Your task to perform on an android device: Open Google Chrome and open the bookmarks view Image 0: 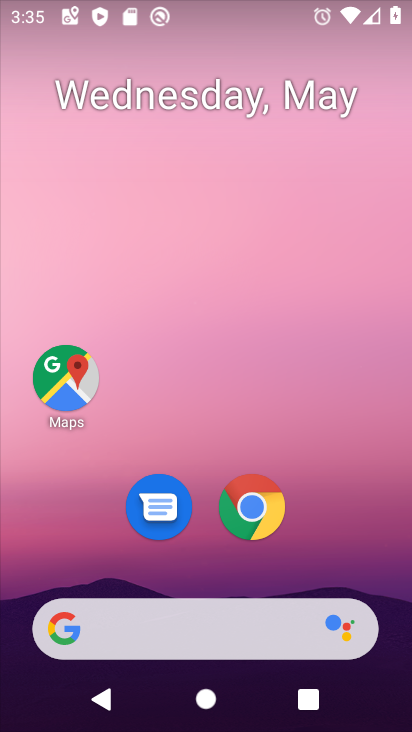
Step 0: click (268, 506)
Your task to perform on an android device: Open Google Chrome and open the bookmarks view Image 1: 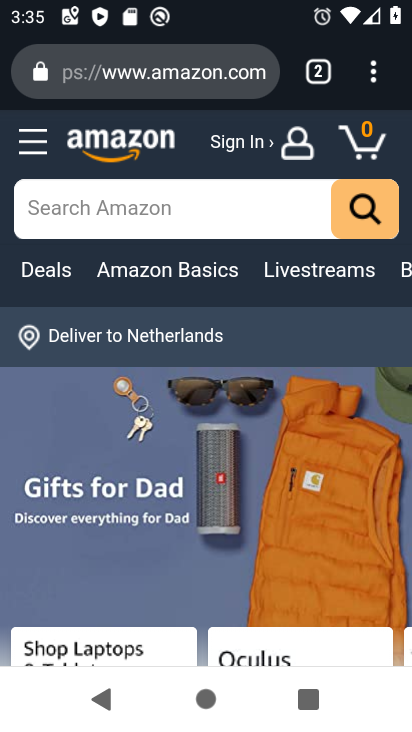
Step 1: click (379, 69)
Your task to perform on an android device: Open Google Chrome and open the bookmarks view Image 2: 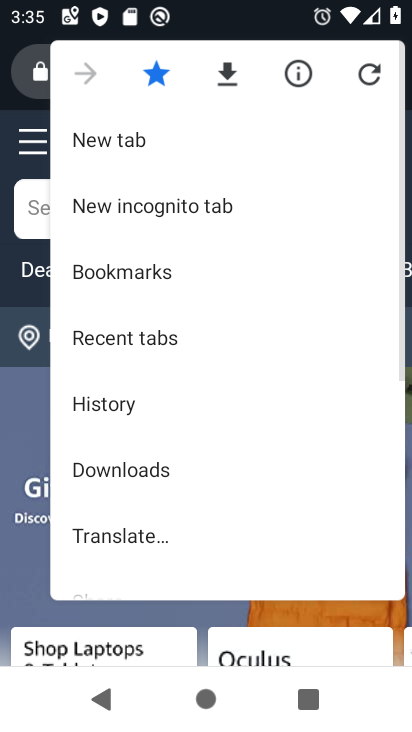
Step 2: click (165, 278)
Your task to perform on an android device: Open Google Chrome and open the bookmarks view Image 3: 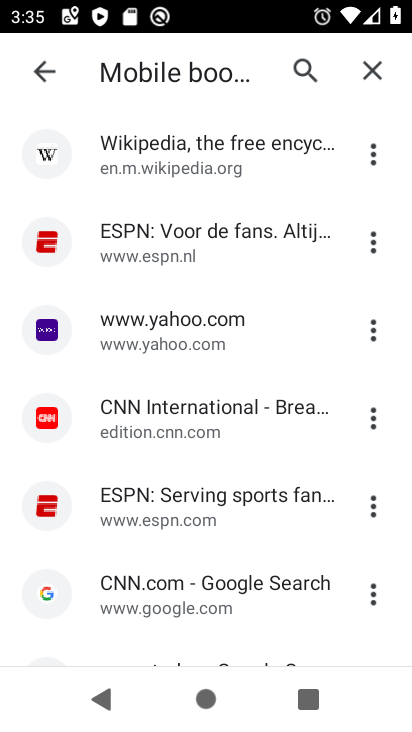
Step 3: click (190, 165)
Your task to perform on an android device: Open Google Chrome and open the bookmarks view Image 4: 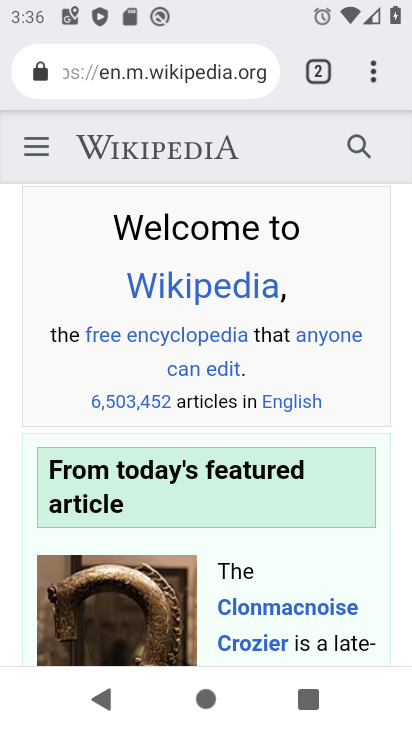
Step 4: task complete